Your task to perform on an android device: Search for macbook on amazon, select the first entry, and add it to the cart. Image 0: 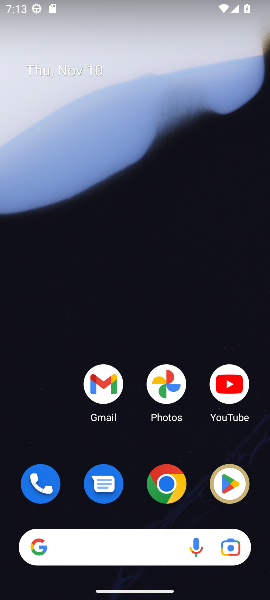
Step 0: click (168, 504)
Your task to perform on an android device: Search for macbook on amazon, select the first entry, and add it to the cart. Image 1: 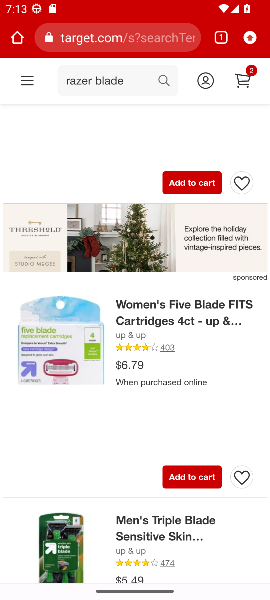
Step 1: click (111, 34)
Your task to perform on an android device: Search for macbook on amazon, select the first entry, and add it to the cart. Image 2: 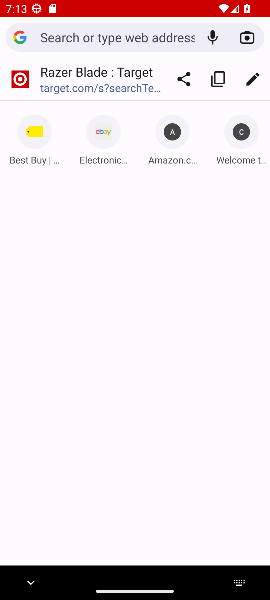
Step 2: click (163, 142)
Your task to perform on an android device: Search for macbook on amazon, select the first entry, and add it to the cart. Image 3: 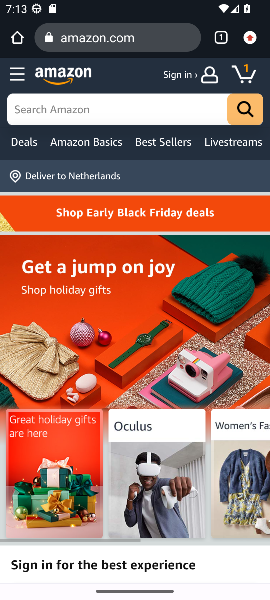
Step 3: click (94, 102)
Your task to perform on an android device: Search for macbook on amazon, select the first entry, and add it to the cart. Image 4: 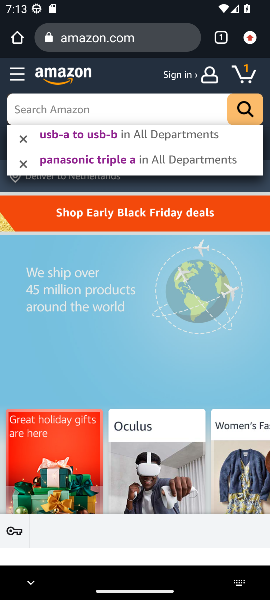
Step 4: type "macbook"
Your task to perform on an android device: Search for macbook on amazon, select the first entry, and add it to the cart. Image 5: 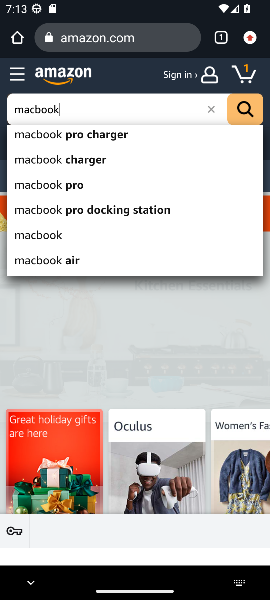
Step 5: click (45, 236)
Your task to perform on an android device: Search for macbook on amazon, select the first entry, and add it to the cart. Image 6: 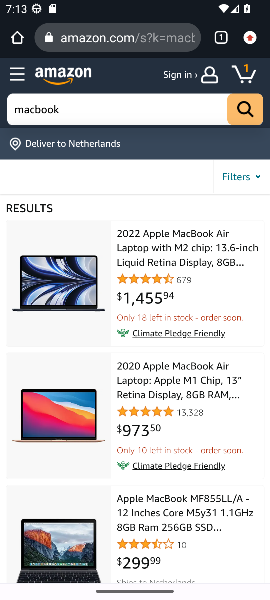
Step 6: click (47, 298)
Your task to perform on an android device: Search for macbook on amazon, select the first entry, and add it to the cart. Image 7: 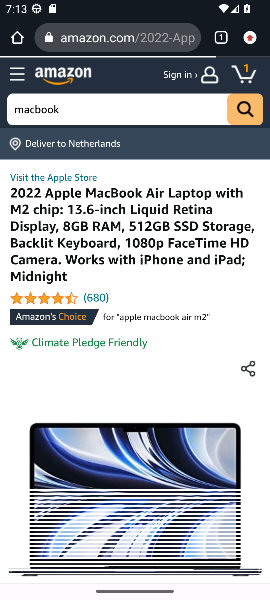
Step 7: task complete